Your task to perform on an android device: toggle notifications settings in the gmail app Image 0: 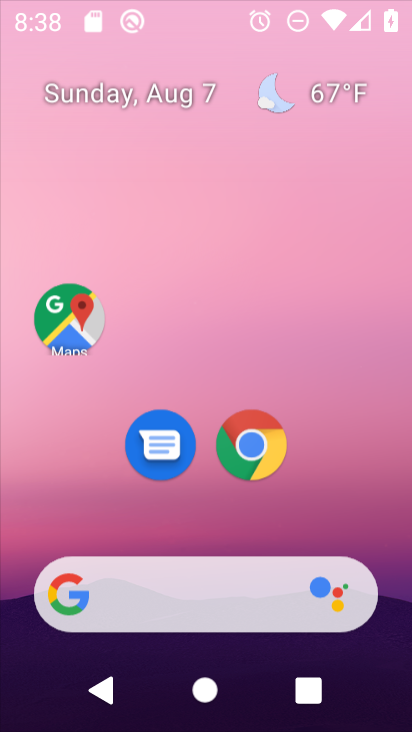
Step 0: press home button
Your task to perform on an android device: toggle notifications settings in the gmail app Image 1: 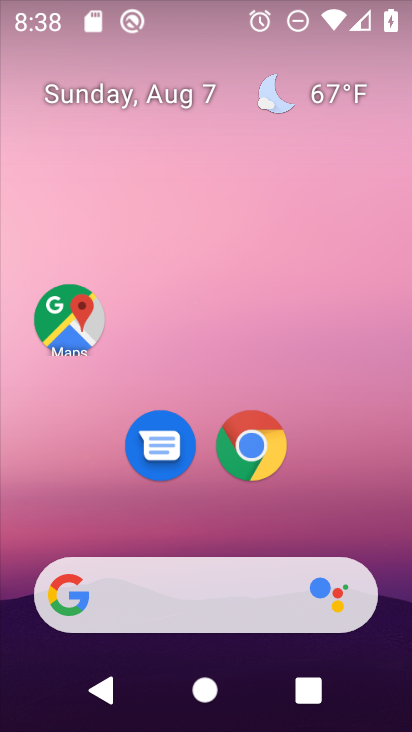
Step 1: drag from (209, 530) to (249, 30)
Your task to perform on an android device: toggle notifications settings in the gmail app Image 2: 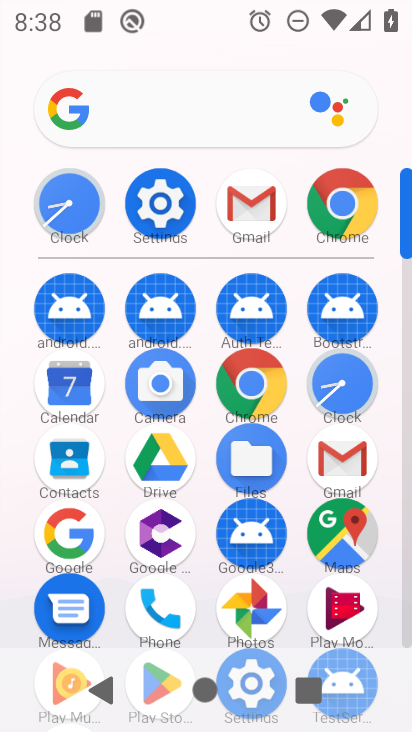
Step 2: click (338, 443)
Your task to perform on an android device: toggle notifications settings in the gmail app Image 3: 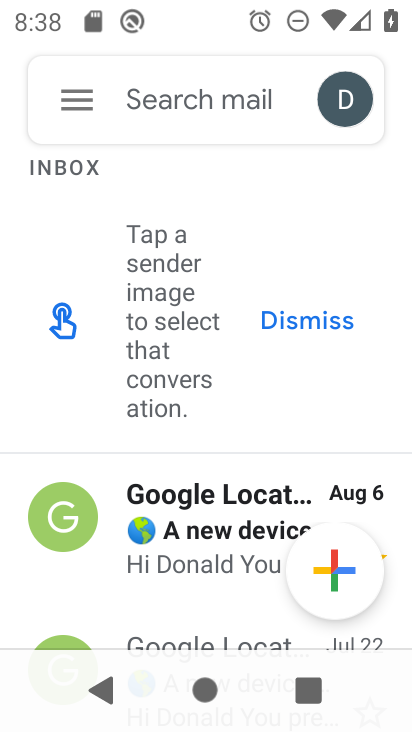
Step 3: click (73, 98)
Your task to perform on an android device: toggle notifications settings in the gmail app Image 4: 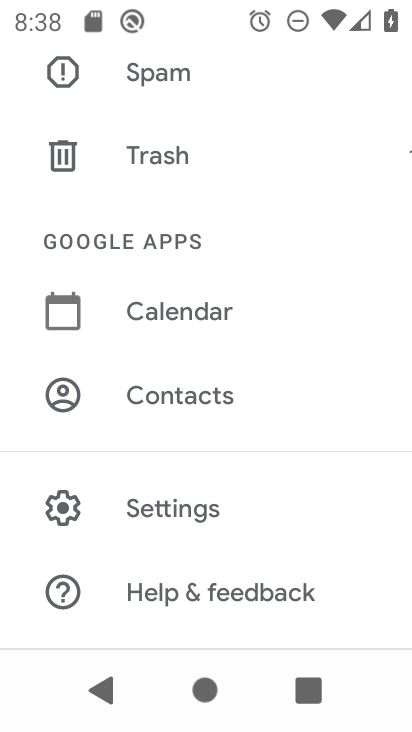
Step 4: click (200, 497)
Your task to perform on an android device: toggle notifications settings in the gmail app Image 5: 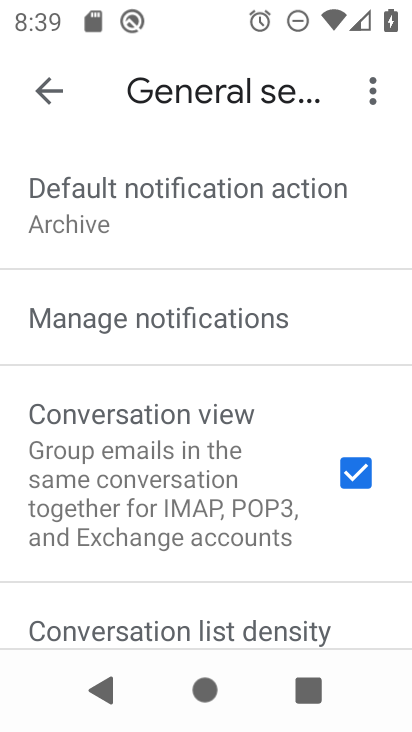
Step 5: click (152, 347)
Your task to perform on an android device: toggle notifications settings in the gmail app Image 6: 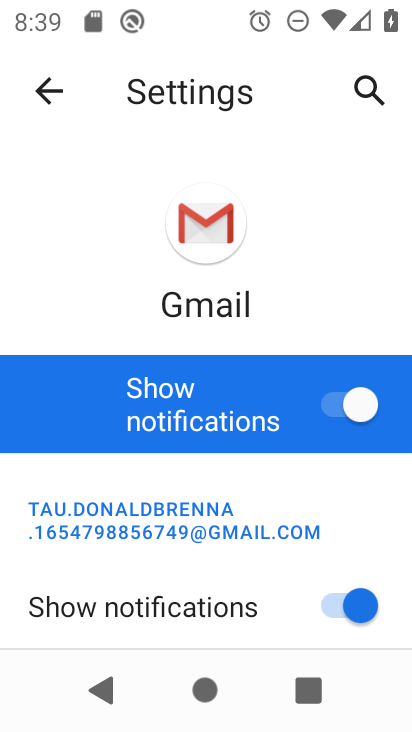
Step 6: click (331, 391)
Your task to perform on an android device: toggle notifications settings in the gmail app Image 7: 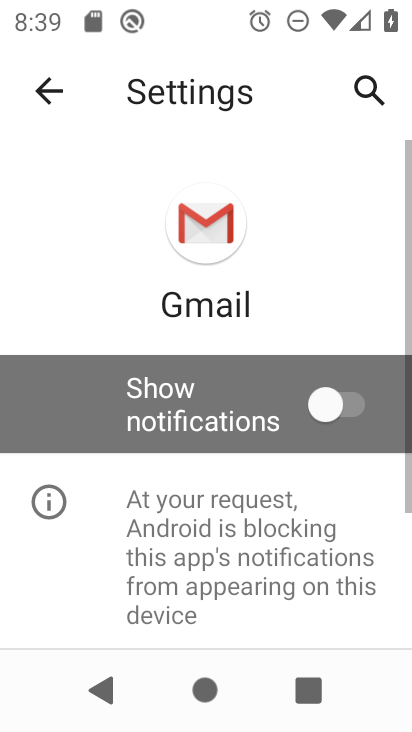
Step 7: task complete